Your task to perform on an android device: Open the calendar app, open the side menu, and click the "Day" option Image 0: 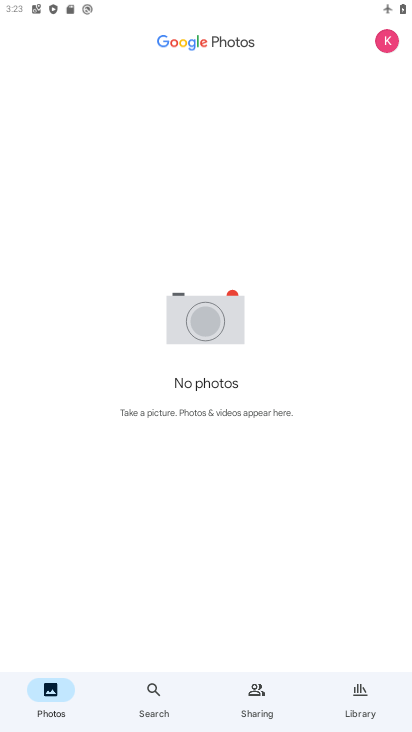
Step 0: drag from (300, 647) to (289, 499)
Your task to perform on an android device: Open the calendar app, open the side menu, and click the "Day" option Image 1: 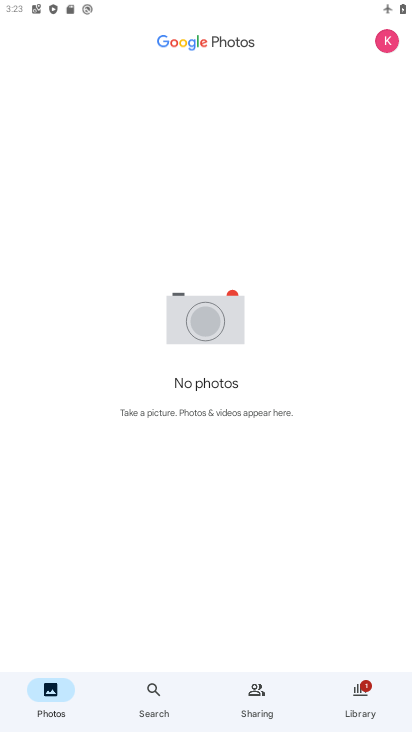
Step 1: press home button
Your task to perform on an android device: Open the calendar app, open the side menu, and click the "Day" option Image 2: 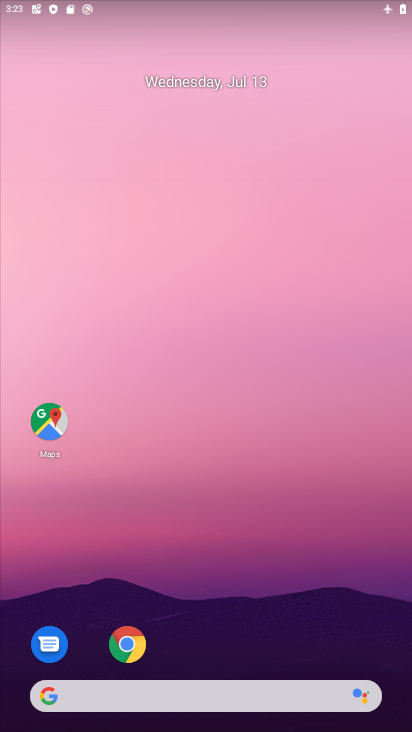
Step 2: drag from (337, 599) to (253, 190)
Your task to perform on an android device: Open the calendar app, open the side menu, and click the "Day" option Image 3: 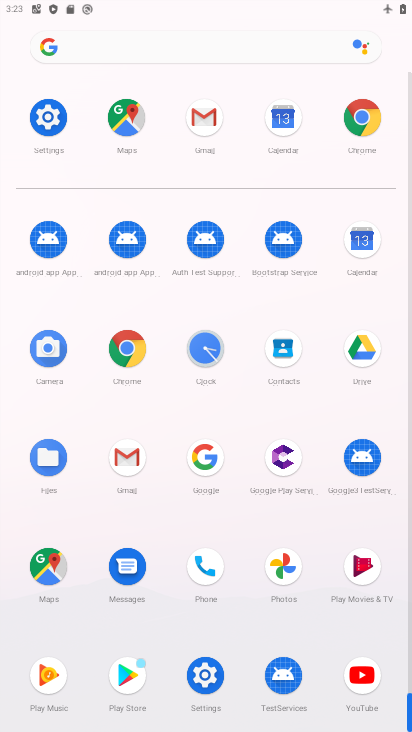
Step 3: click (294, 108)
Your task to perform on an android device: Open the calendar app, open the side menu, and click the "Day" option Image 4: 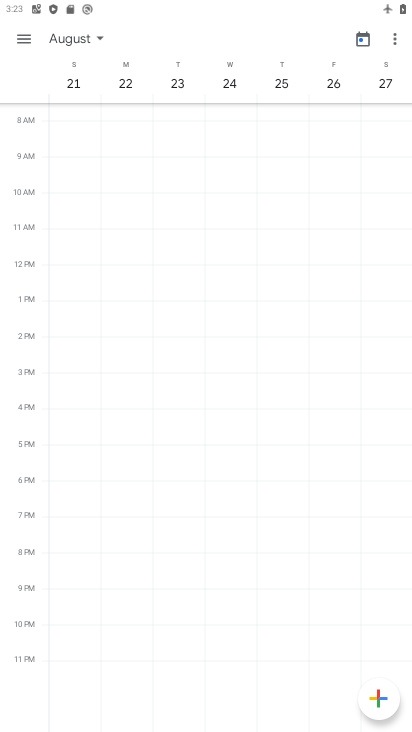
Step 4: click (24, 36)
Your task to perform on an android device: Open the calendar app, open the side menu, and click the "Day" option Image 5: 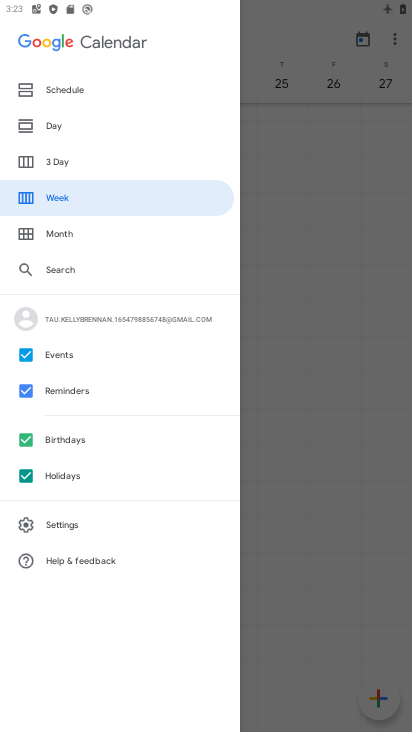
Step 5: click (65, 125)
Your task to perform on an android device: Open the calendar app, open the side menu, and click the "Day" option Image 6: 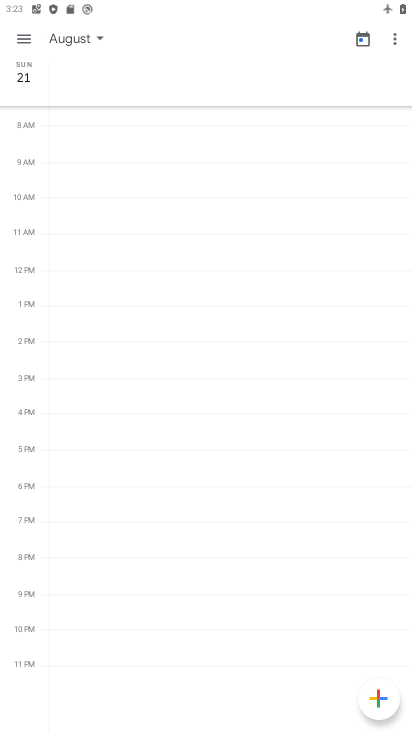
Step 6: task complete